Your task to perform on an android device: Search for duracell triple a on amazon.com, select the first entry, add it to the cart, then select checkout. Image 0: 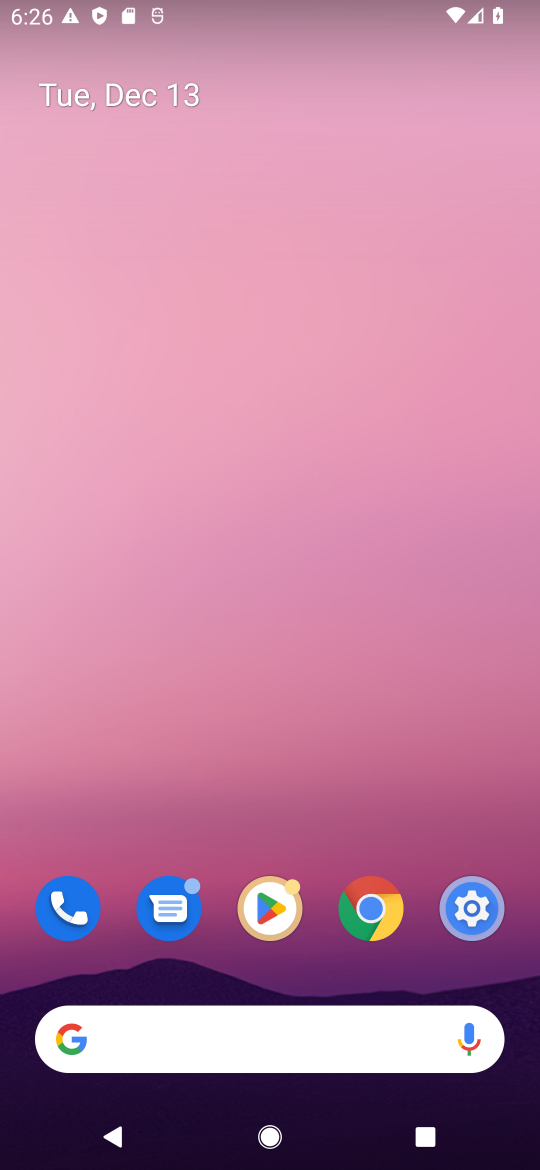
Step 0: press home button
Your task to perform on an android device: Search for duracell triple a on amazon.com, select the first entry, add it to the cart, then select checkout. Image 1: 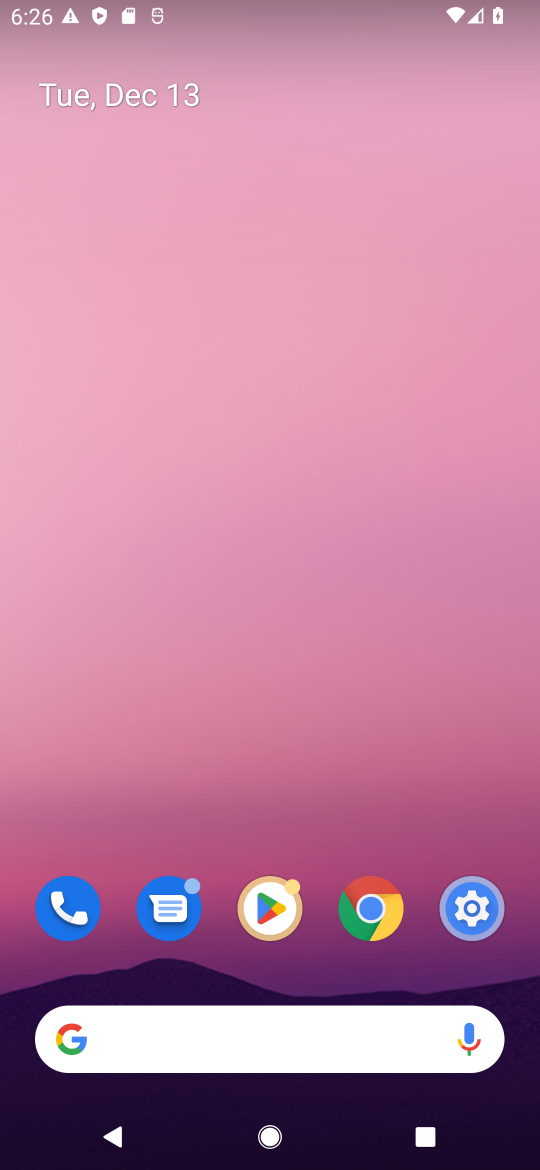
Step 1: click (132, 1032)
Your task to perform on an android device: Search for duracell triple a on amazon.com, select the first entry, add it to the cart, then select checkout. Image 2: 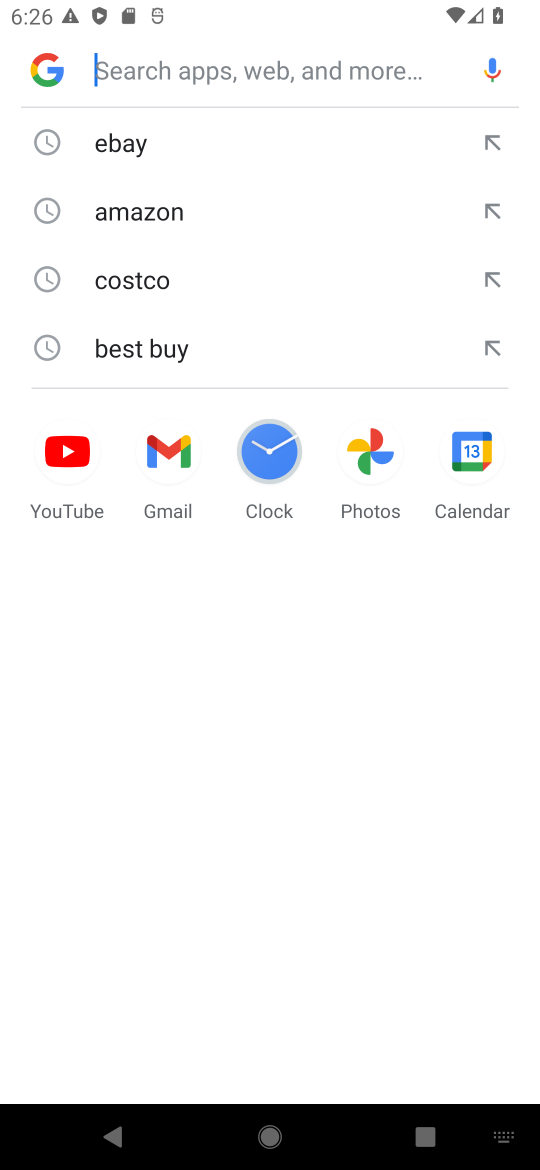
Step 2: type "amazon.com"
Your task to perform on an android device: Search for duracell triple a on amazon.com, select the first entry, add it to the cart, then select checkout. Image 3: 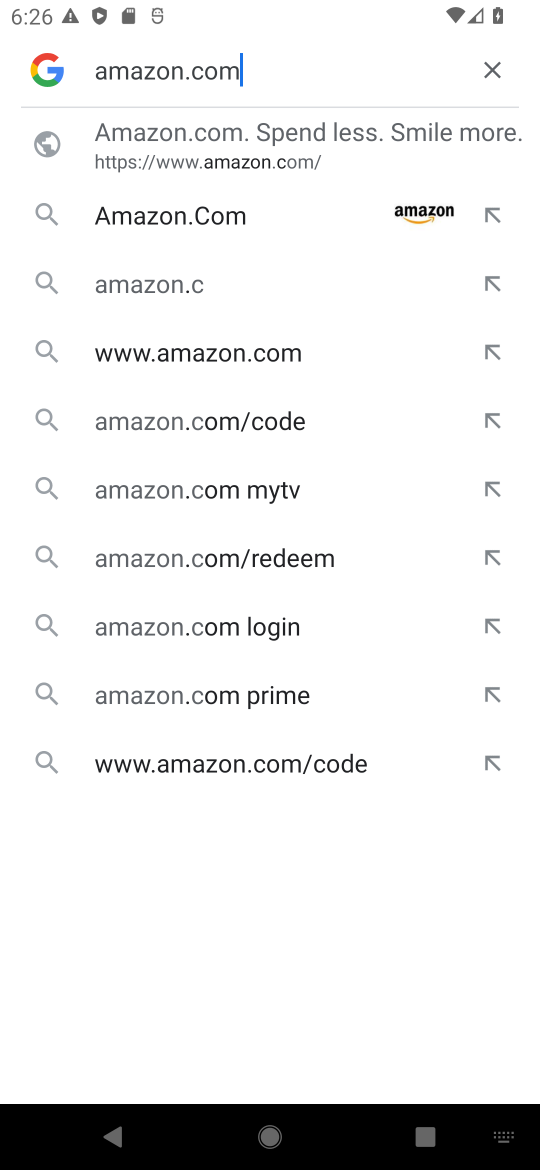
Step 3: press enter
Your task to perform on an android device: Search for duracell triple a on amazon.com, select the first entry, add it to the cart, then select checkout. Image 4: 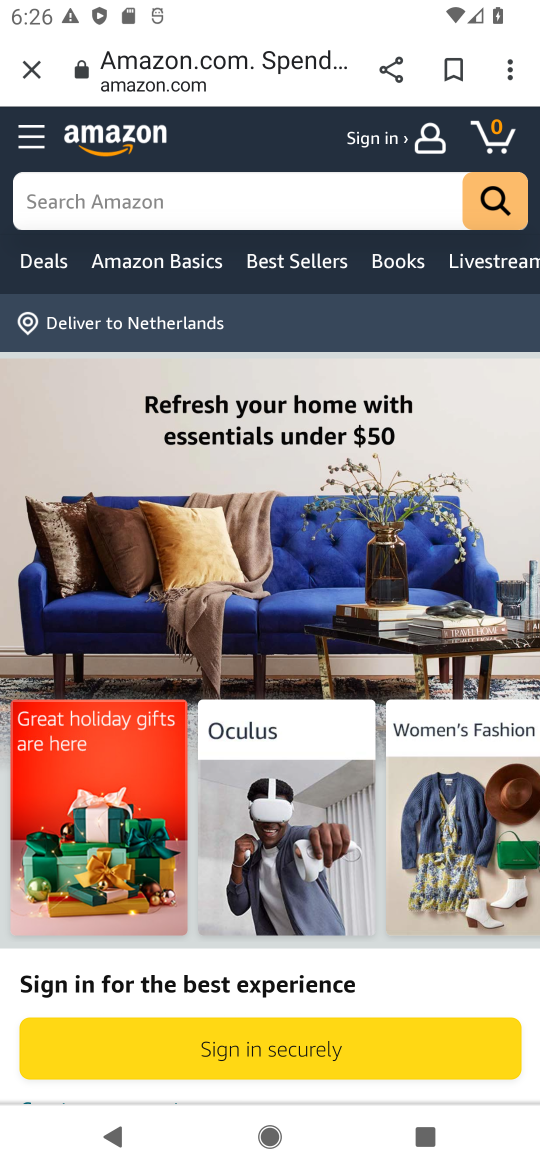
Step 4: click (69, 203)
Your task to perform on an android device: Search for duracell triple a on amazon.com, select the first entry, add it to the cart, then select checkout. Image 5: 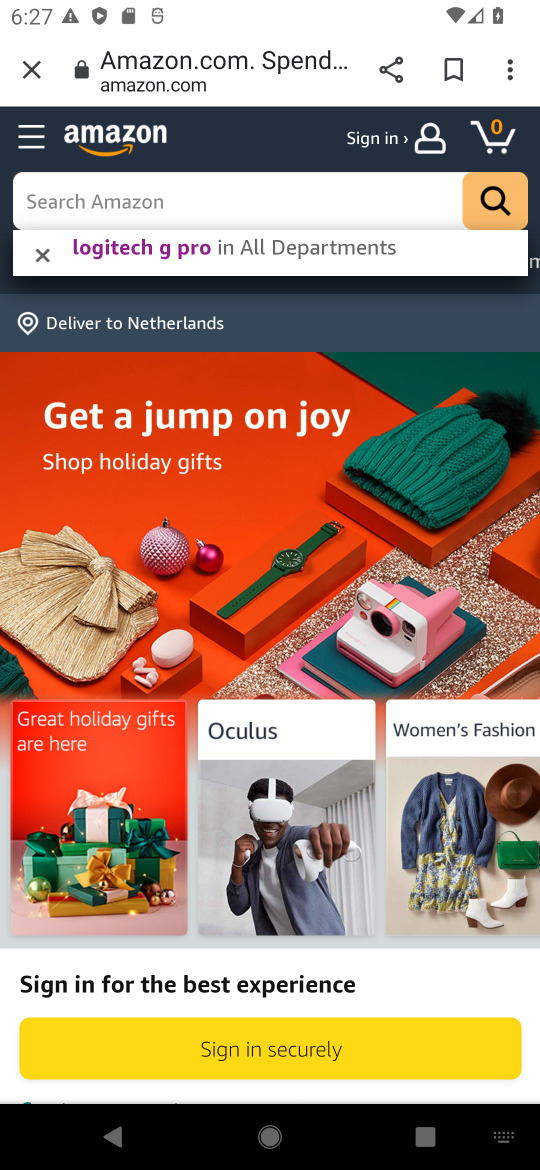
Step 5: type "duracell triple a"
Your task to perform on an android device: Search for duracell triple a on amazon.com, select the first entry, add it to the cart, then select checkout. Image 6: 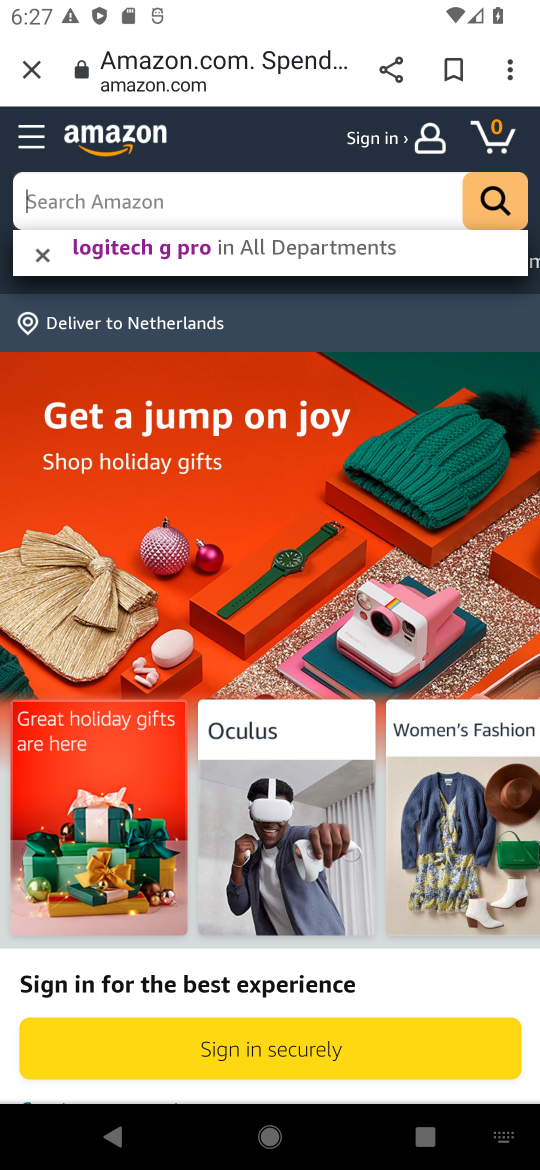
Step 6: press enter
Your task to perform on an android device: Search for duracell triple a on amazon.com, select the first entry, add it to the cart, then select checkout. Image 7: 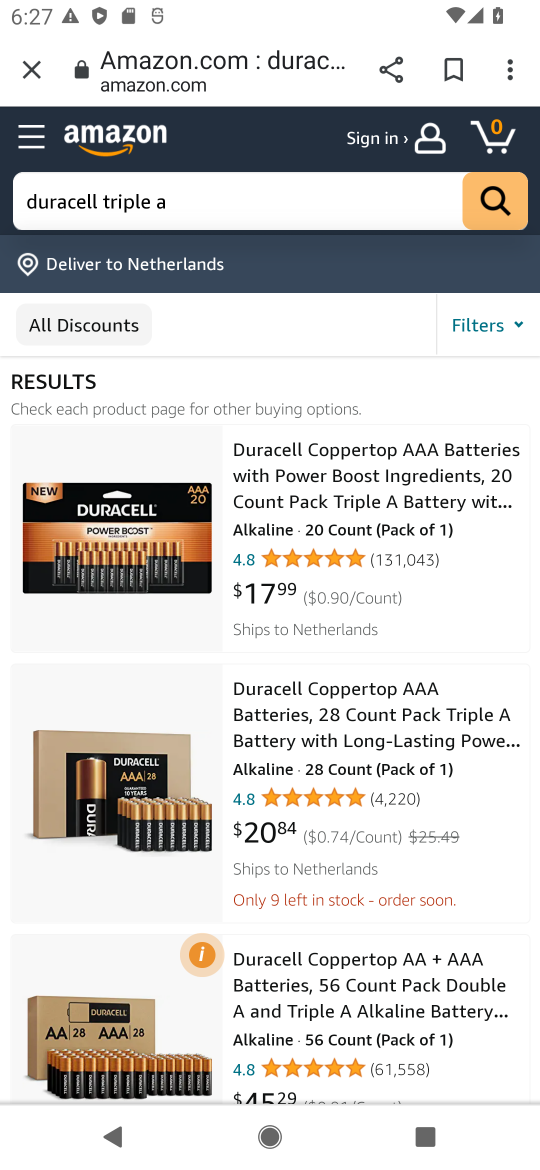
Step 7: click (316, 483)
Your task to perform on an android device: Search for duracell triple a on amazon.com, select the first entry, add it to the cart, then select checkout. Image 8: 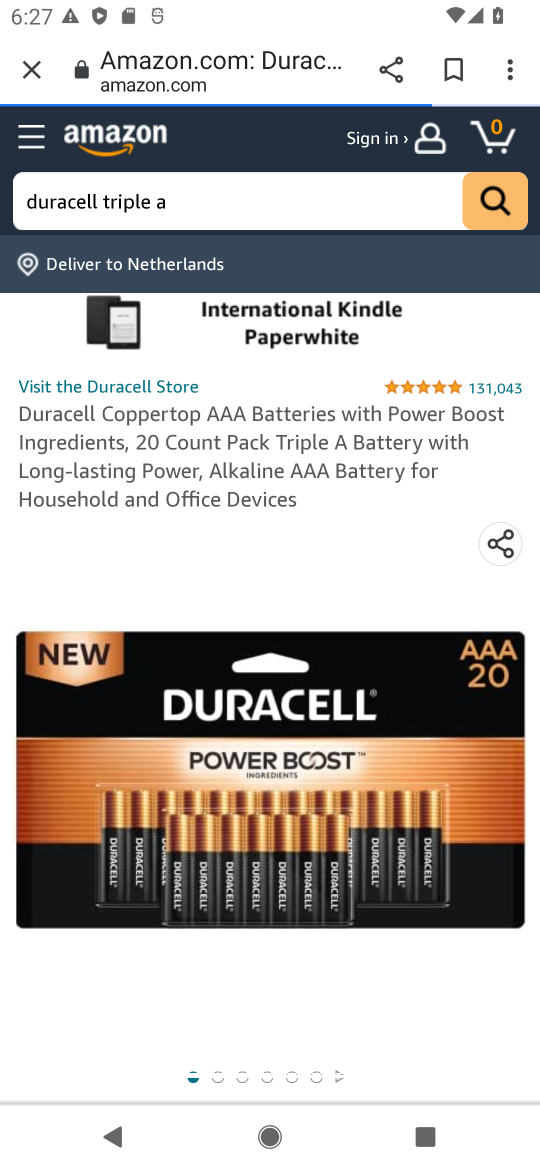
Step 8: drag from (352, 894) to (359, 391)
Your task to perform on an android device: Search for duracell triple a on amazon.com, select the first entry, add it to the cart, then select checkout. Image 9: 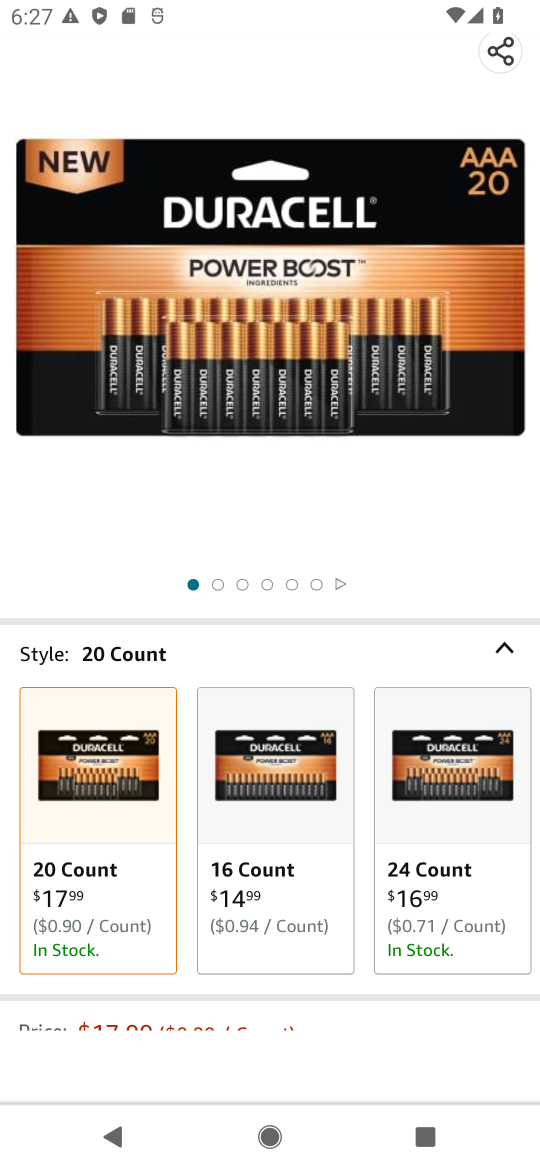
Step 9: drag from (312, 982) to (333, 435)
Your task to perform on an android device: Search for duracell triple a on amazon.com, select the first entry, add it to the cart, then select checkout. Image 10: 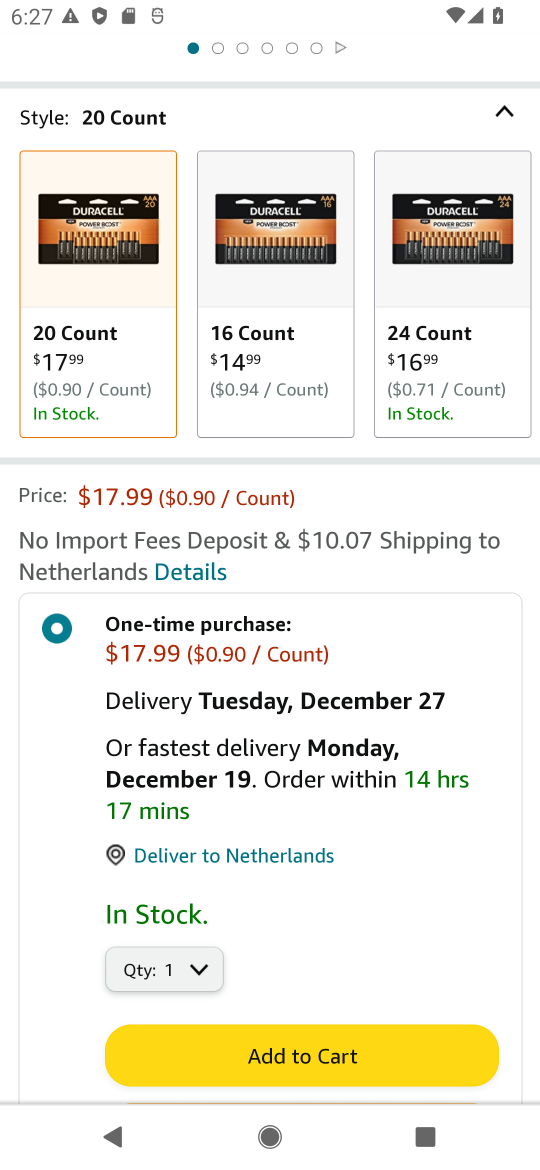
Step 10: drag from (355, 885) to (393, 418)
Your task to perform on an android device: Search for duracell triple a on amazon.com, select the first entry, add it to the cart, then select checkout. Image 11: 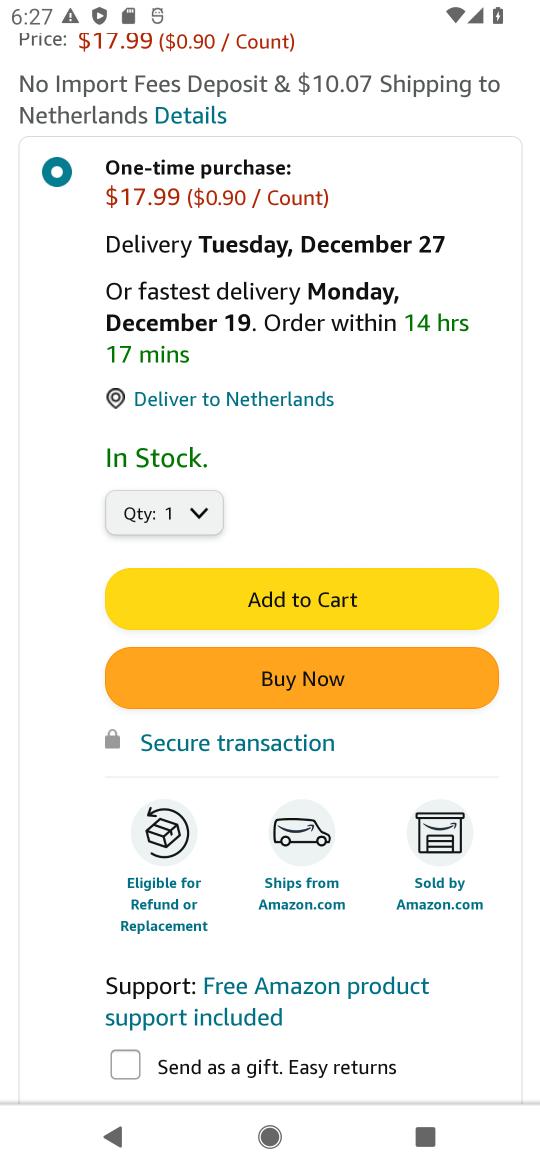
Step 11: click (290, 593)
Your task to perform on an android device: Search for duracell triple a on amazon.com, select the first entry, add it to the cart, then select checkout. Image 12: 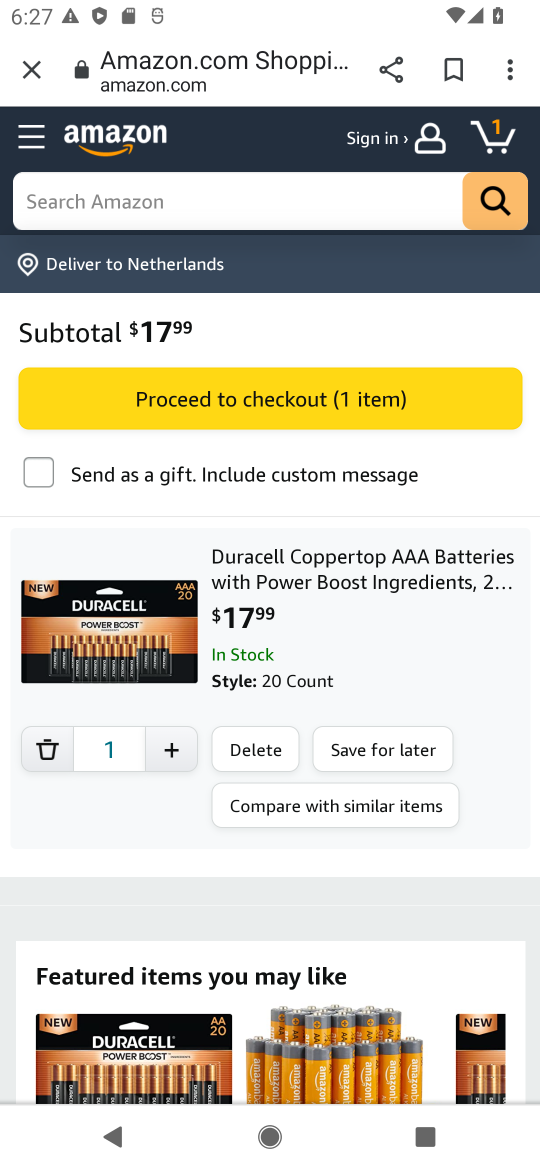
Step 12: click (282, 392)
Your task to perform on an android device: Search for duracell triple a on amazon.com, select the first entry, add it to the cart, then select checkout. Image 13: 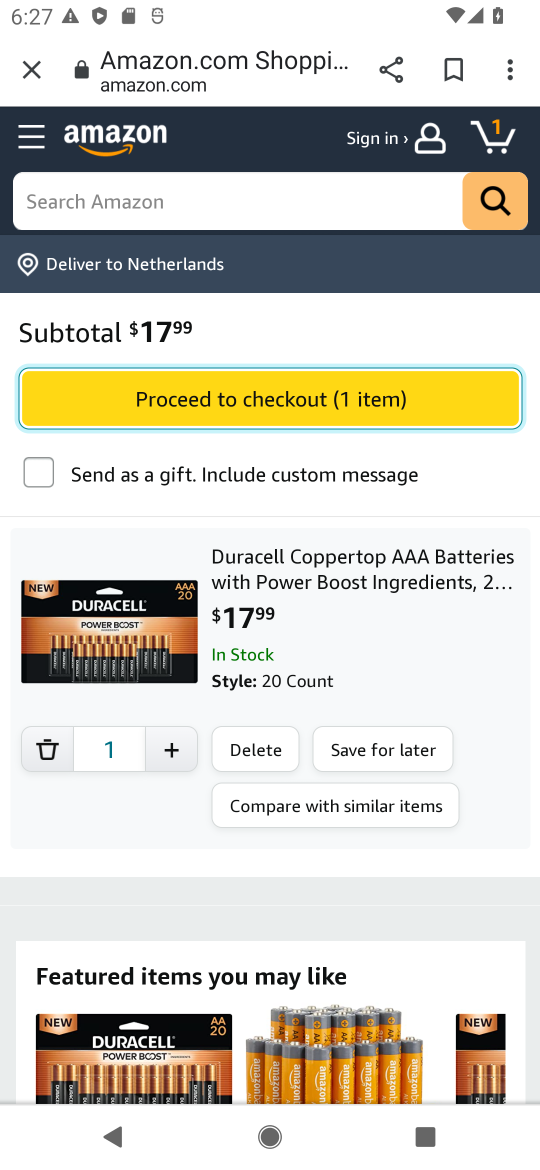
Step 13: click (219, 395)
Your task to perform on an android device: Search for duracell triple a on amazon.com, select the first entry, add it to the cart, then select checkout. Image 14: 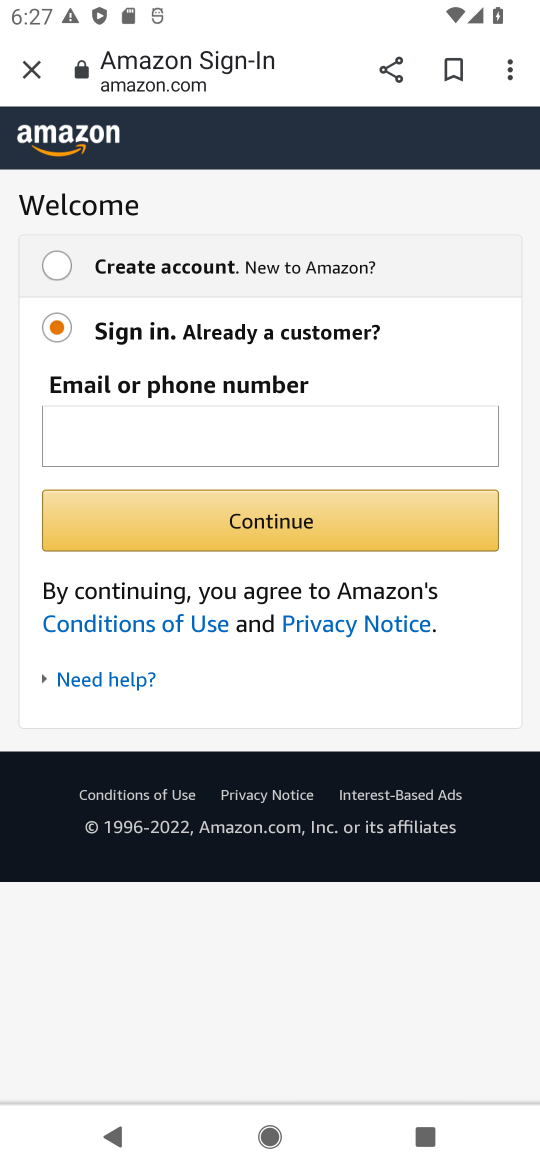
Step 14: task complete